Your task to perform on an android device: Go to Yahoo.com Image 0: 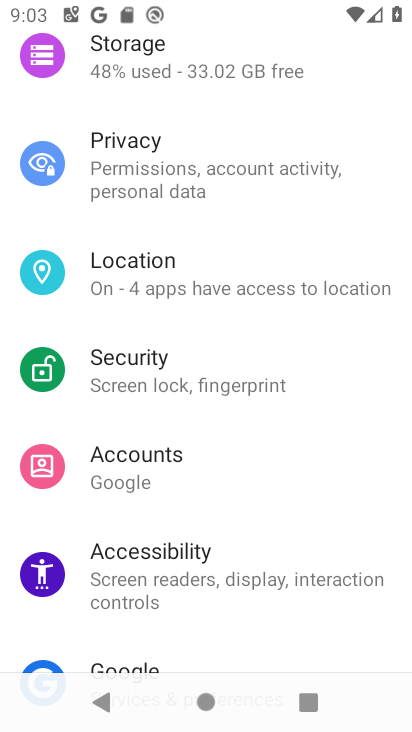
Step 0: press home button
Your task to perform on an android device: Go to Yahoo.com Image 1: 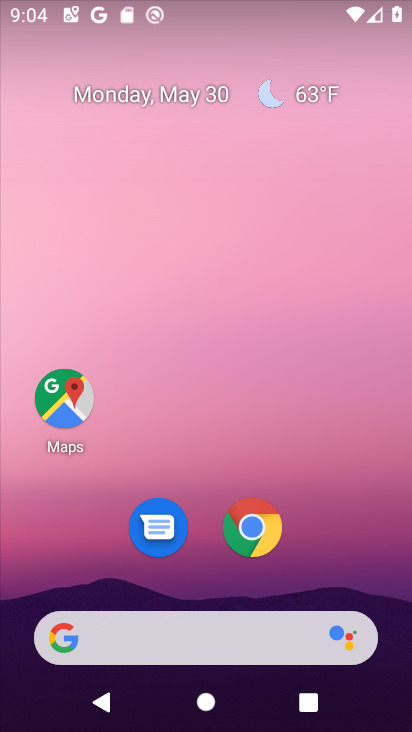
Step 1: click (247, 523)
Your task to perform on an android device: Go to Yahoo.com Image 2: 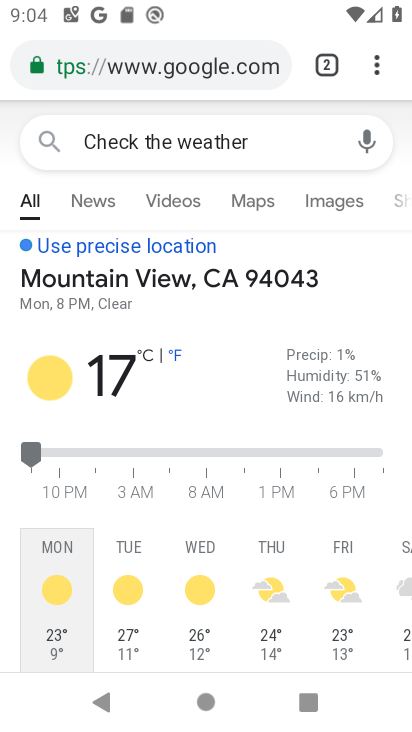
Step 2: click (370, 66)
Your task to perform on an android device: Go to Yahoo.com Image 3: 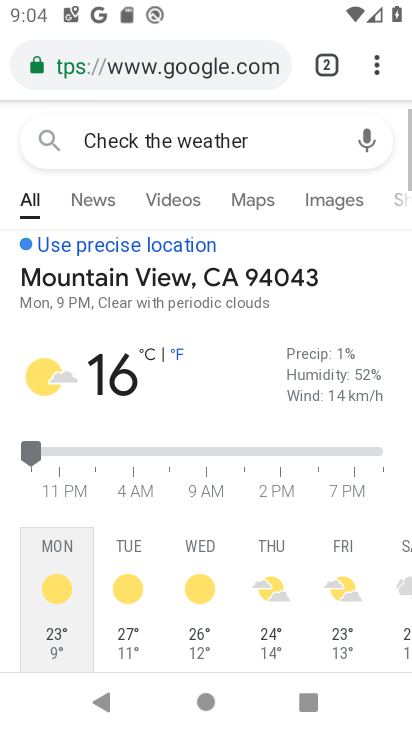
Step 3: click (368, 67)
Your task to perform on an android device: Go to Yahoo.com Image 4: 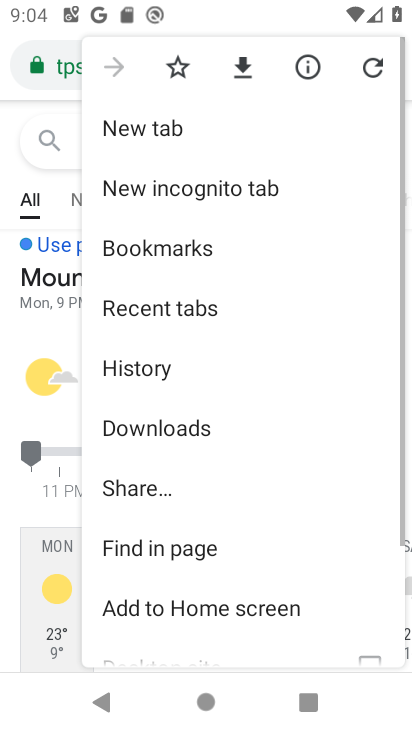
Step 4: click (142, 127)
Your task to perform on an android device: Go to Yahoo.com Image 5: 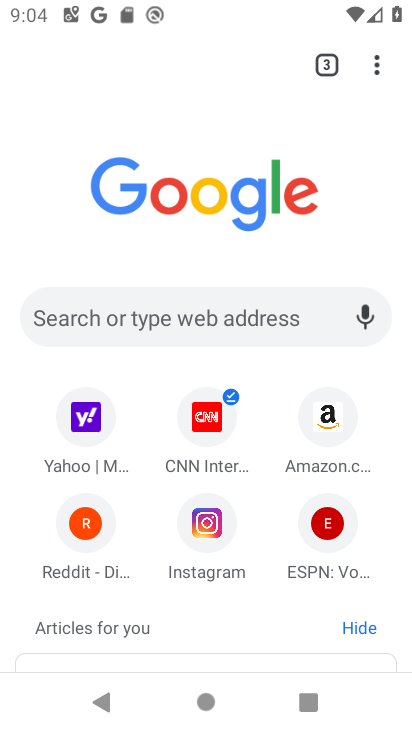
Step 5: click (71, 413)
Your task to perform on an android device: Go to Yahoo.com Image 6: 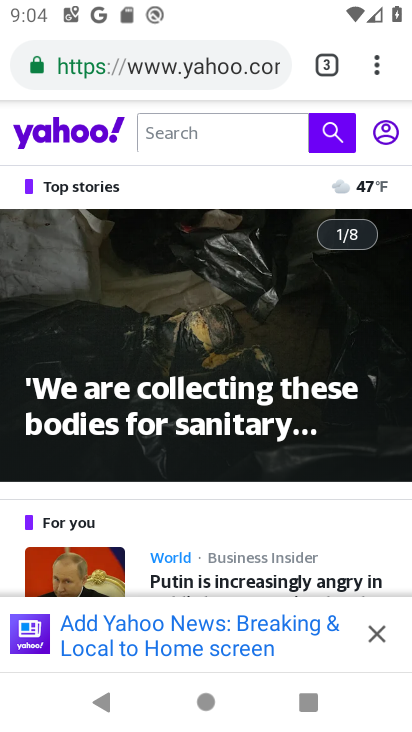
Step 6: task complete